Your task to perform on an android device: When is my next appointment? Image 0: 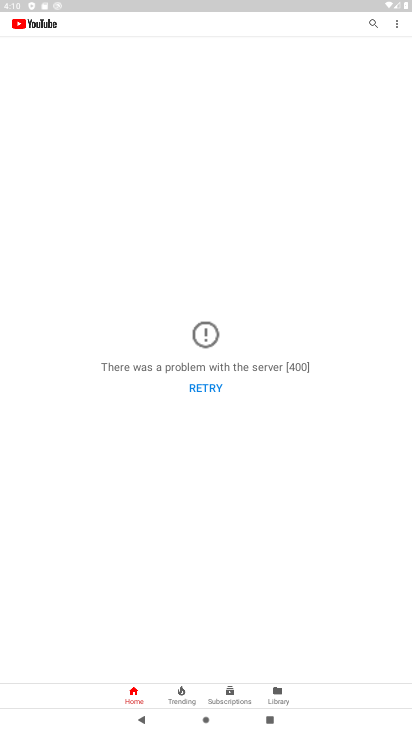
Step 0: press home button
Your task to perform on an android device: When is my next appointment? Image 1: 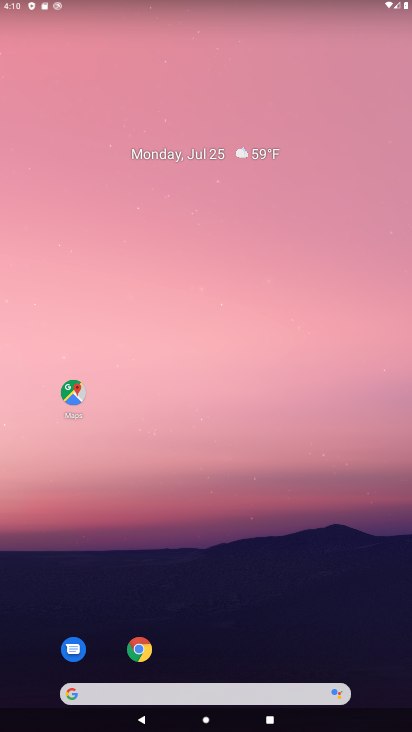
Step 1: drag from (330, 573) to (325, 0)
Your task to perform on an android device: When is my next appointment? Image 2: 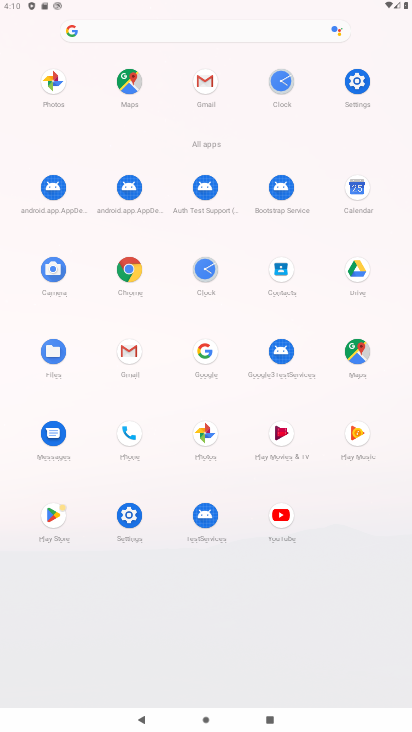
Step 2: click (350, 192)
Your task to perform on an android device: When is my next appointment? Image 3: 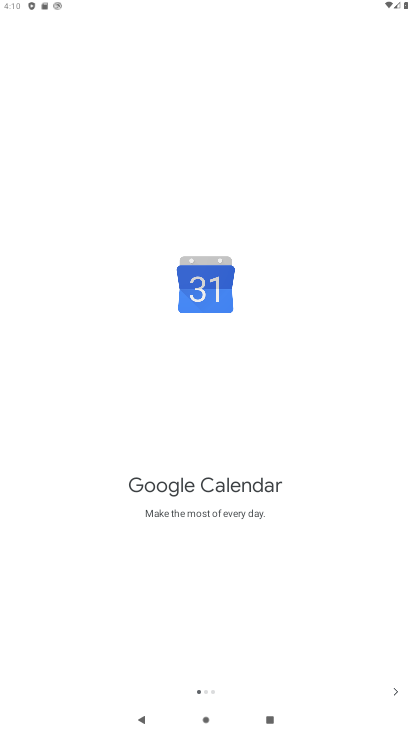
Step 3: click (389, 692)
Your task to perform on an android device: When is my next appointment? Image 4: 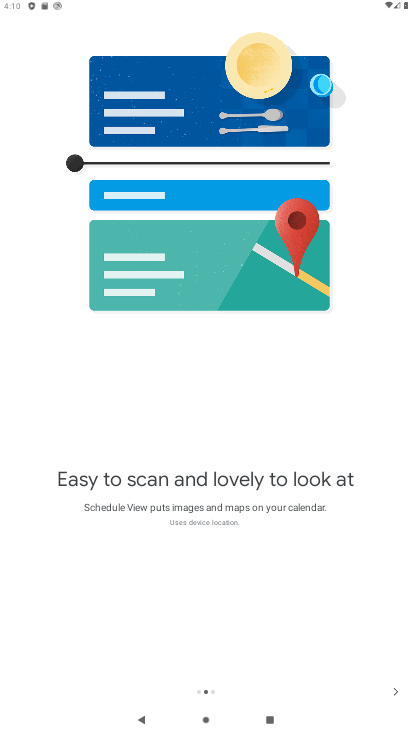
Step 4: click (389, 692)
Your task to perform on an android device: When is my next appointment? Image 5: 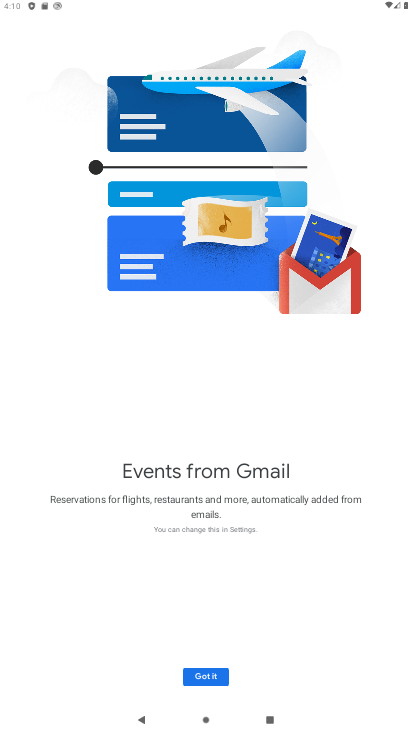
Step 5: click (182, 671)
Your task to perform on an android device: When is my next appointment? Image 6: 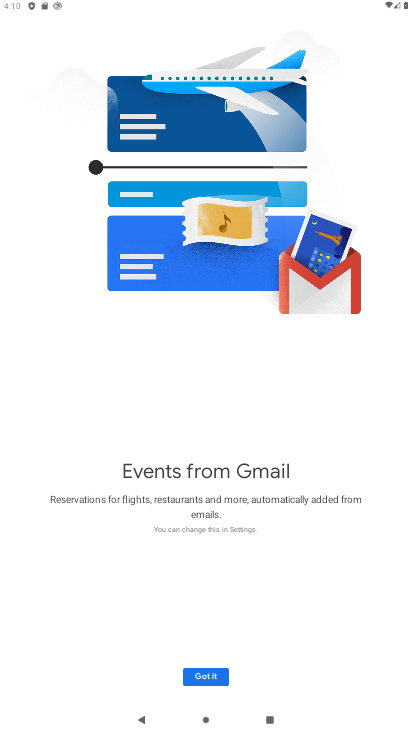
Step 6: click (196, 681)
Your task to perform on an android device: When is my next appointment? Image 7: 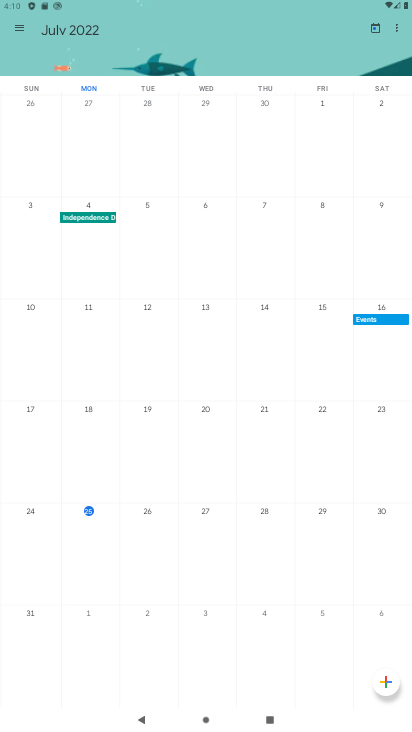
Step 7: click (91, 507)
Your task to perform on an android device: When is my next appointment? Image 8: 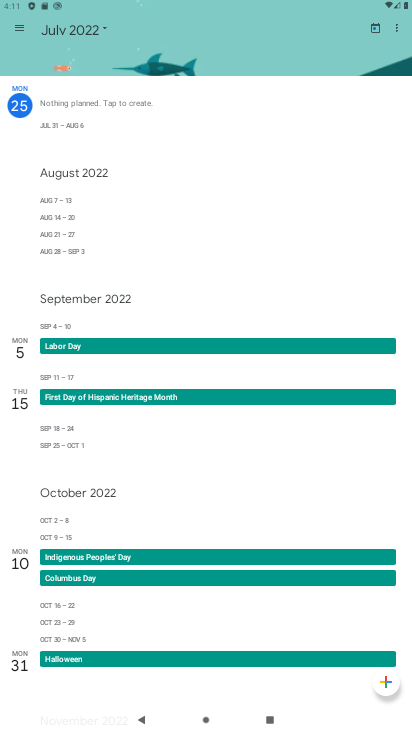
Step 8: task complete